Your task to perform on an android device: open a new tab in the chrome app Image 0: 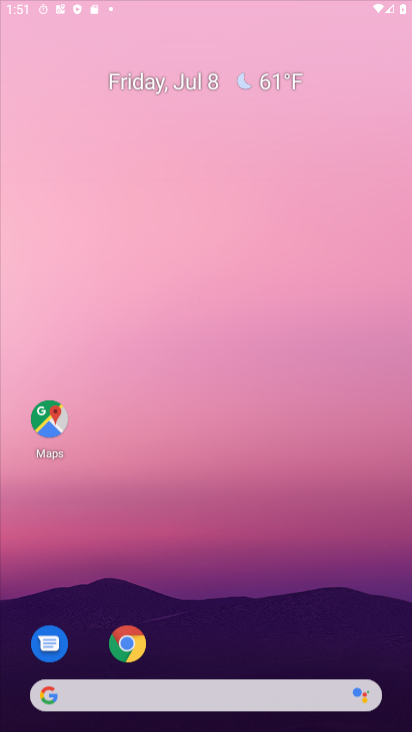
Step 0: press home button
Your task to perform on an android device: open a new tab in the chrome app Image 1: 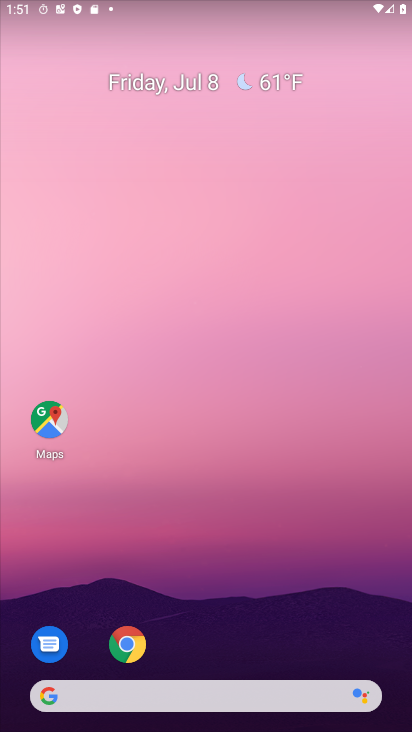
Step 1: drag from (194, 638) to (124, 641)
Your task to perform on an android device: open a new tab in the chrome app Image 2: 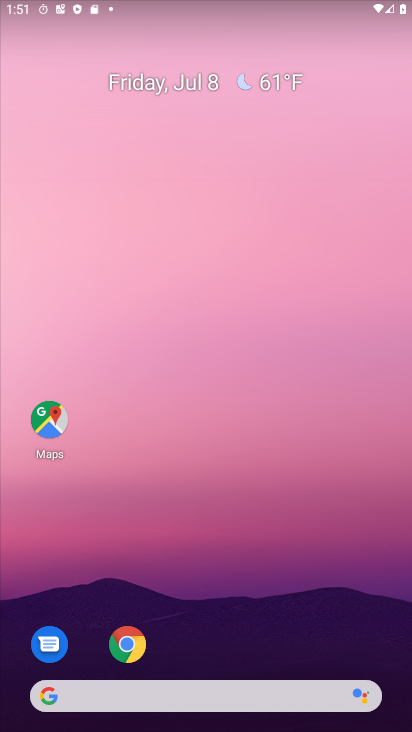
Step 2: click (124, 641)
Your task to perform on an android device: open a new tab in the chrome app Image 3: 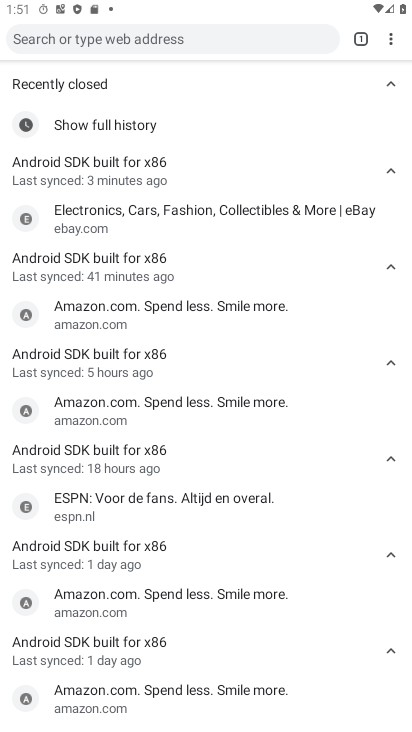
Step 3: click (361, 41)
Your task to perform on an android device: open a new tab in the chrome app Image 4: 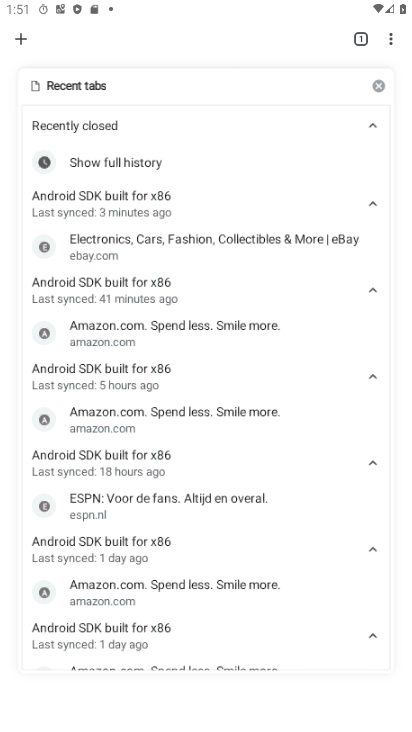
Step 4: click (24, 36)
Your task to perform on an android device: open a new tab in the chrome app Image 5: 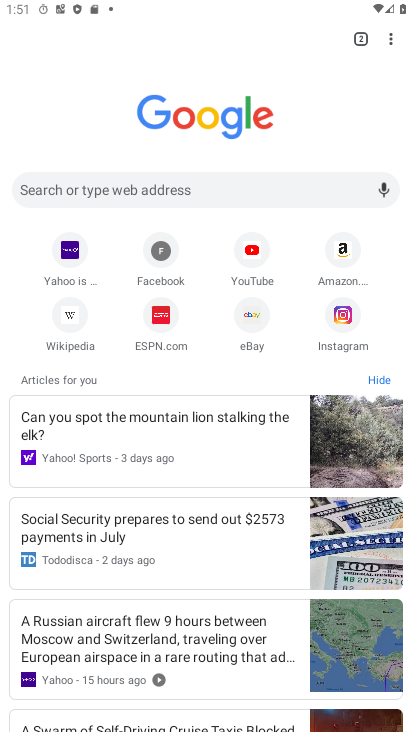
Step 5: task complete